Your task to perform on an android device: What's the weather today? Image 0: 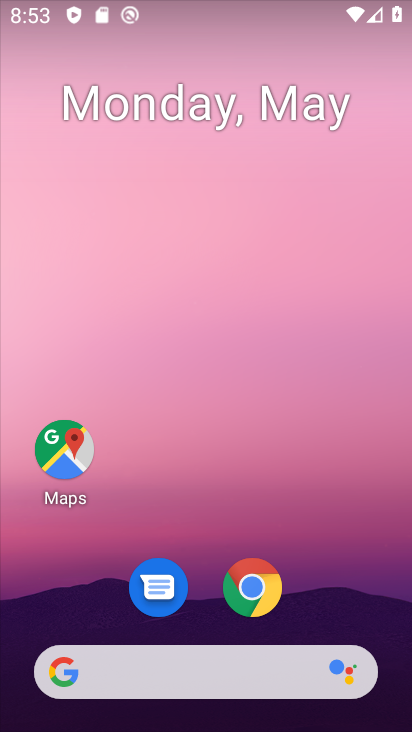
Step 0: click (240, 671)
Your task to perform on an android device: What's the weather today? Image 1: 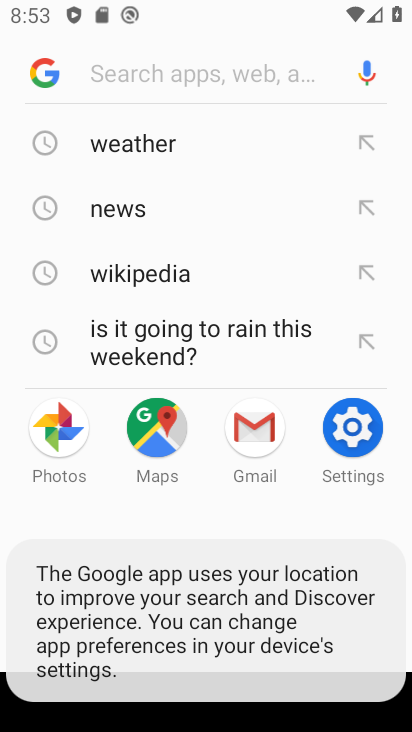
Step 1: click (116, 151)
Your task to perform on an android device: What's the weather today? Image 2: 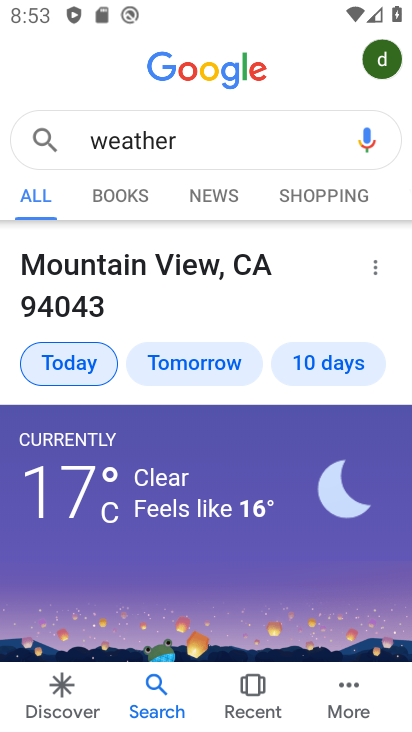
Step 2: click (71, 349)
Your task to perform on an android device: What's the weather today? Image 3: 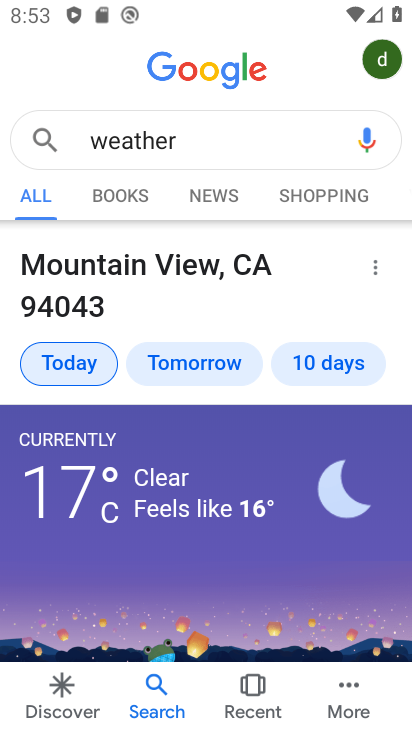
Step 3: task complete